Your task to perform on an android device: set the stopwatch Image 0: 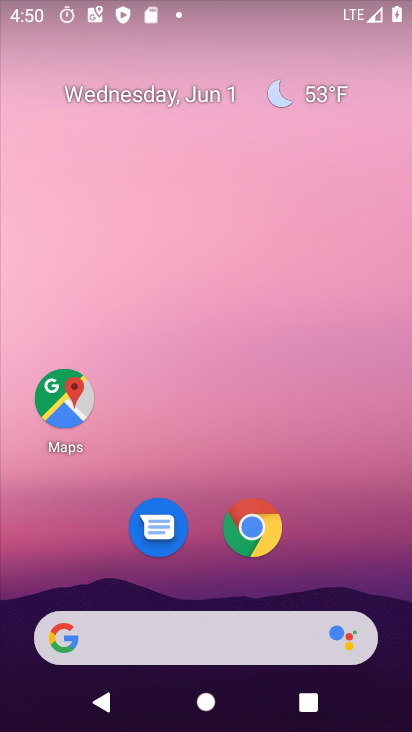
Step 0: drag from (293, 583) to (297, 97)
Your task to perform on an android device: set the stopwatch Image 1: 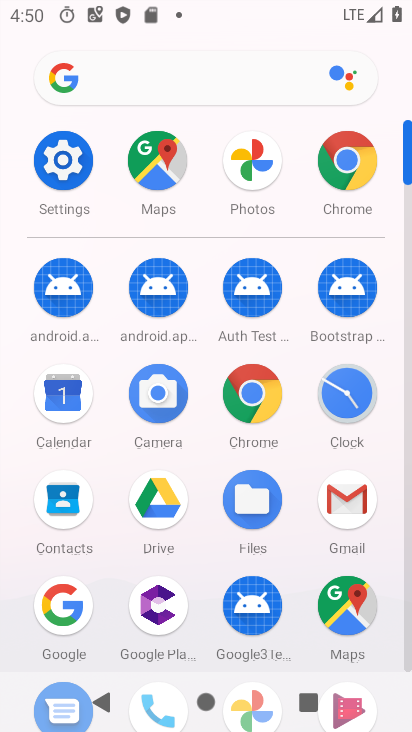
Step 1: click (345, 401)
Your task to perform on an android device: set the stopwatch Image 2: 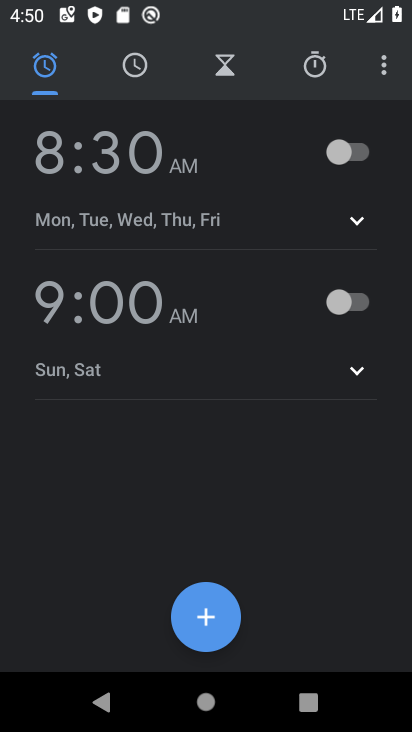
Step 2: click (325, 67)
Your task to perform on an android device: set the stopwatch Image 3: 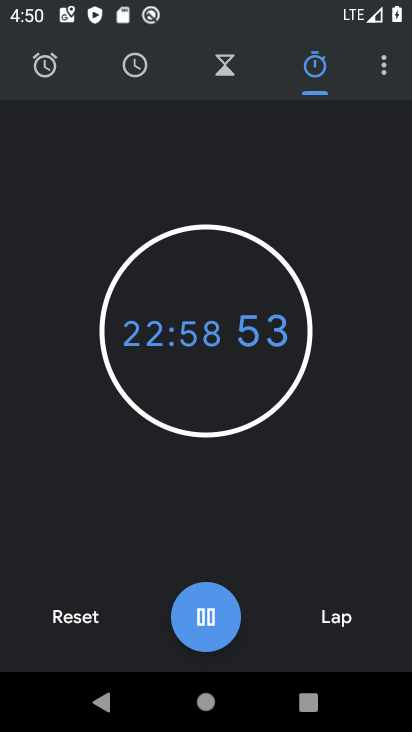
Step 3: task complete